Your task to perform on an android device: turn off priority inbox in the gmail app Image 0: 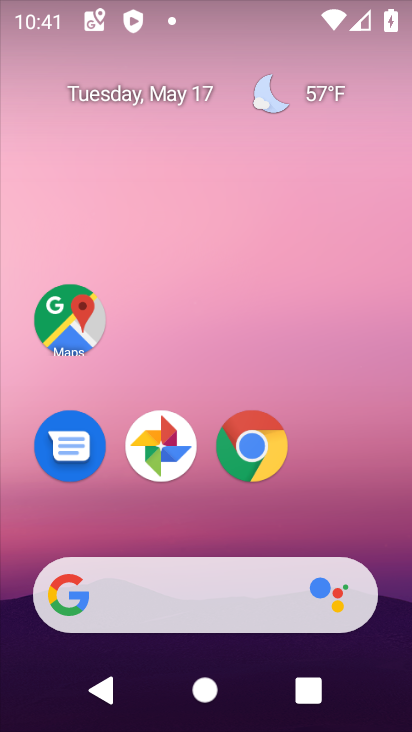
Step 0: drag from (185, 584) to (245, 210)
Your task to perform on an android device: turn off priority inbox in the gmail app Image 1: 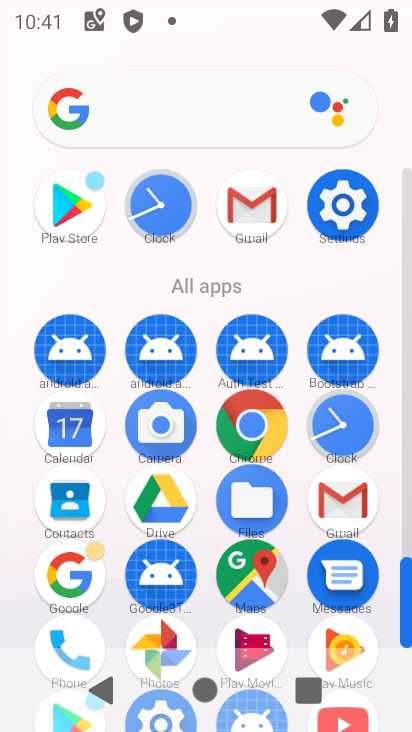
Step 1: click (263, 238)
Your task to perform on an android device: turn off priority inbox in the gmail app Image 2: 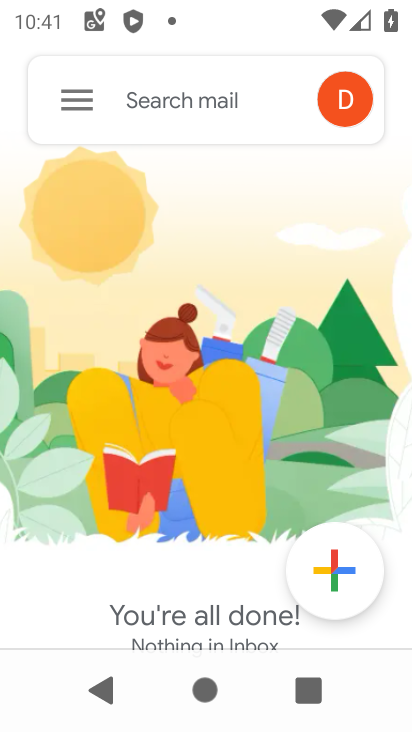
Step 2: click (68, 112)
Your task to perform on an android device: turn off priority inbox in the gmail app Image 3: 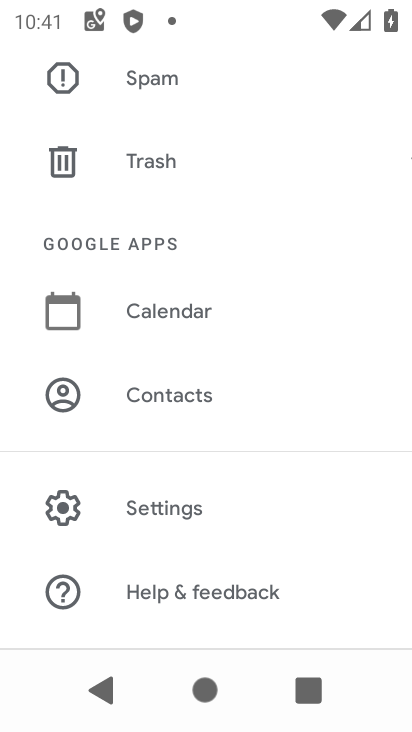
Step 3: click (148, 493)
Your task to perform on an android device: turn off priority inbox in the gmail app Image 4: 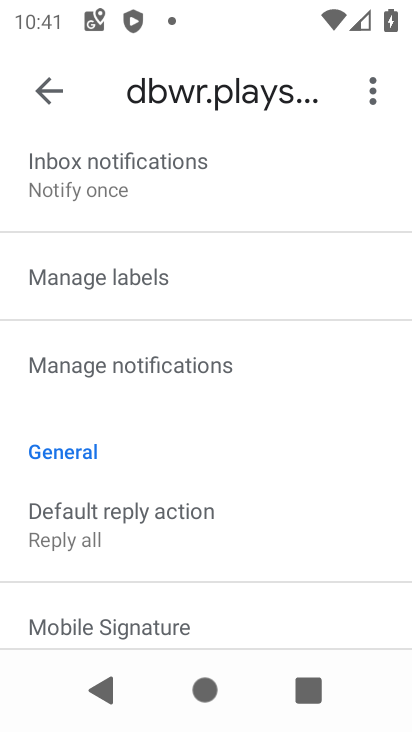
Step 4: drag from (147, 523) to (214, 713)
Your task to perform on an android device: turn off priority inbox in the gmail app Image 5: 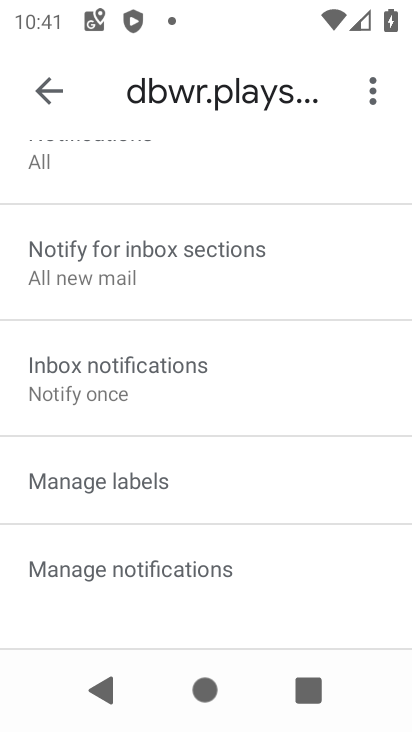
Step 5: drag from (201, 177) to (215, 303)
Your task to perform on an android device: turn off priority inbox in the gmail app Image 6: 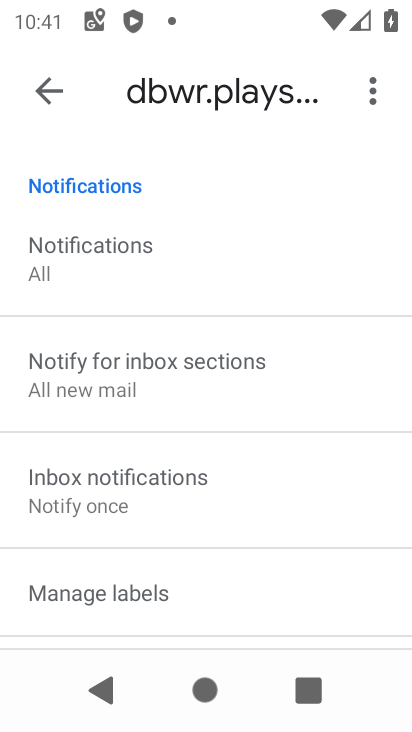
Step 6: drag from (222, 237) to (225, 557)
Your task to perform on an android device: turn off priority inbox in the gmail app Image 7: 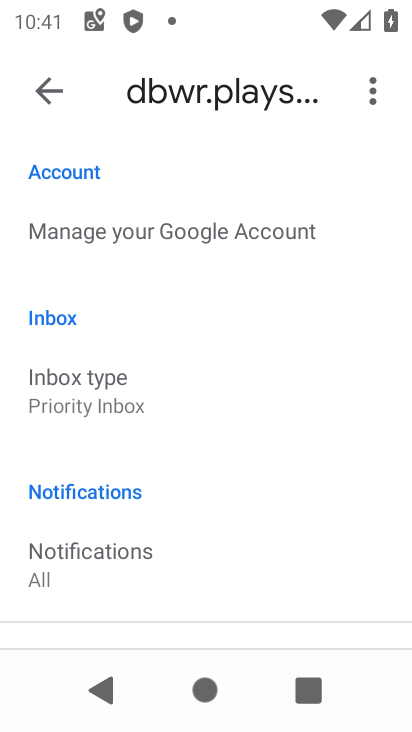
Step 7: click (157, 407)
Your task to perform on an android device: turn off priority inbox in the gmail app Image 8: 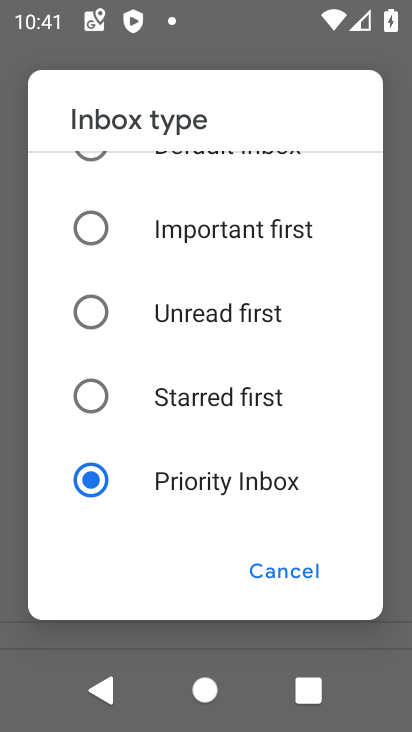
Step 8: click (186, 241)
Your task to perform on an android device: turn off priority inbox in the gmail app Image 9: 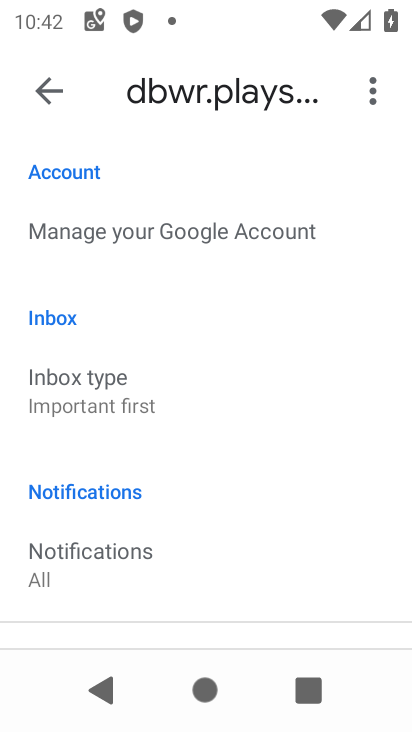
Step 9: task complete